Your task to perform on an android device: What's on my calendar today? Image 0: 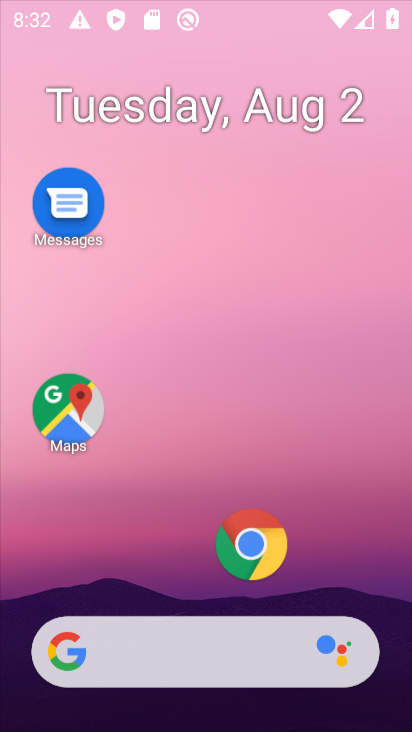
Step 0: press home button
Your task to perform on an android device: What's on my calendar today? Image 1: 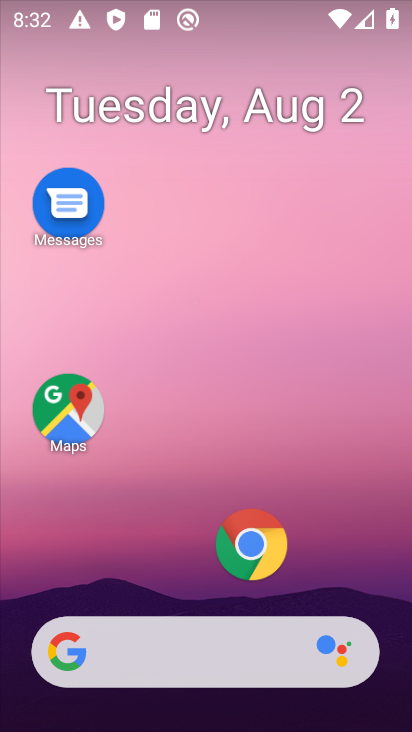
Step 1: drag from (177, 637) to (103, 184)
Your task to perform on an android device: What's on my calendar today? Image 2: 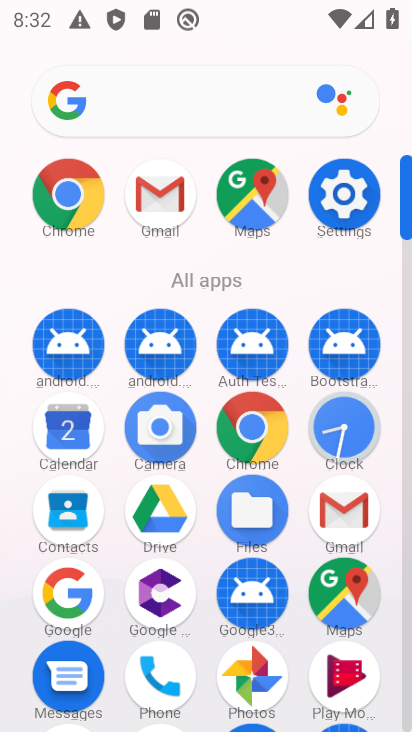
Step 2: click (76, 423)
Your task to perform on an android device: What's on my calendar today? Image 3: 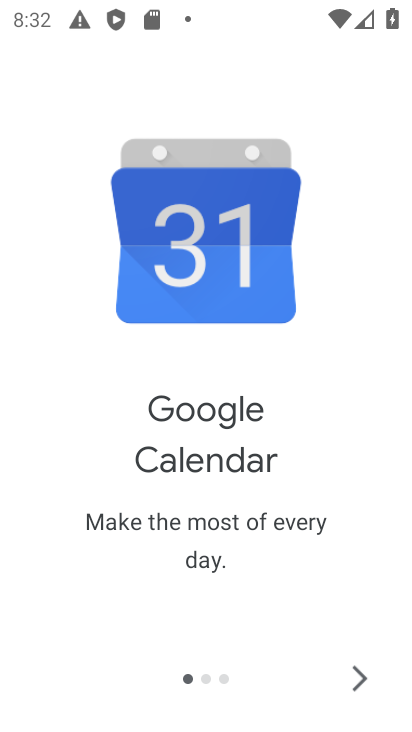
Step 3: click (367, 681)
Your task to perform on an android device: What's on my calendar today? Image 4: 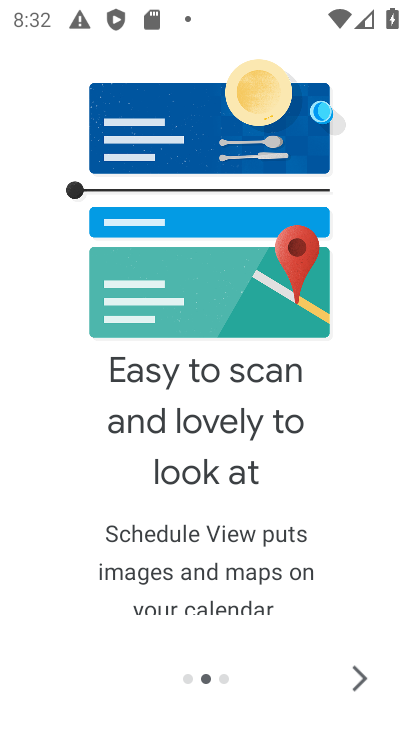
Step 4: click (367, 681)
Your task to perform on an android device: What's on my calendar today? Image 5: 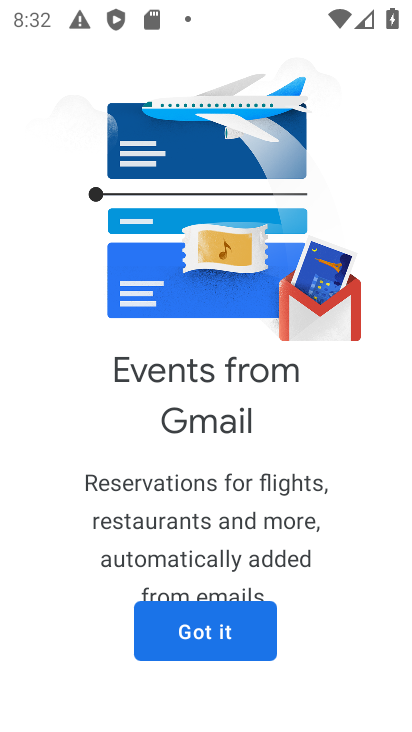
Step 5: click (220, 631)
Your task to perform on an android device: What's on my calendar today? Image 6: 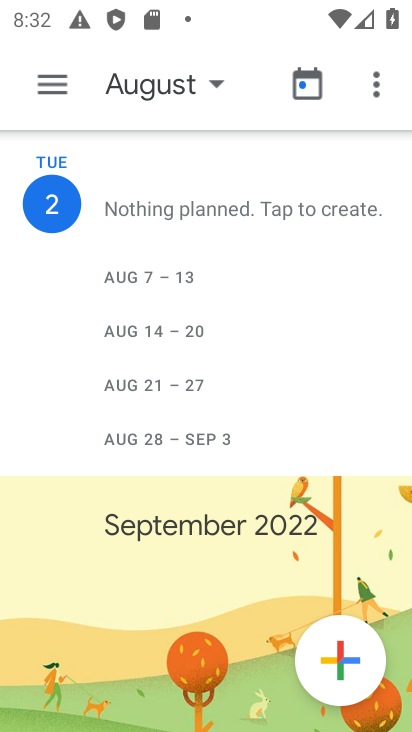
Step 6: click (143, 87)
Your task to perform on an android device: What's on my calendar today? Image 7: 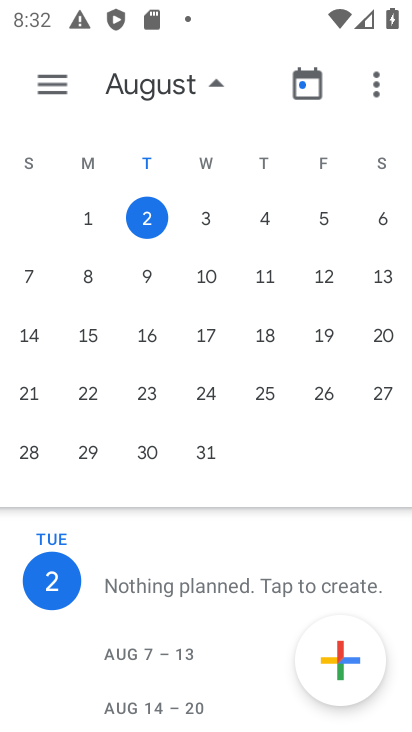
Step 7: click (151, 213)
Your task to perform on an android device: What's on my calendar today? Image 8: 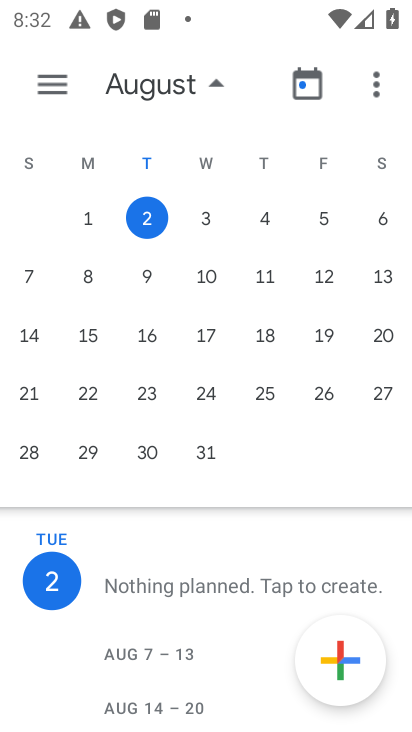
Step 8: task complete